Your task to perform on an android device: Do I have any events today? Image 0: 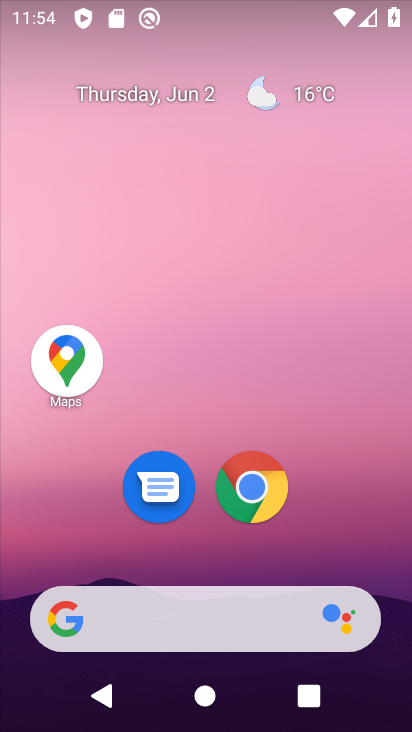
Step 0: drag from (341, 564) to (309, 149)
Your task to perform on an android device: Do I have any events today? Image 1: 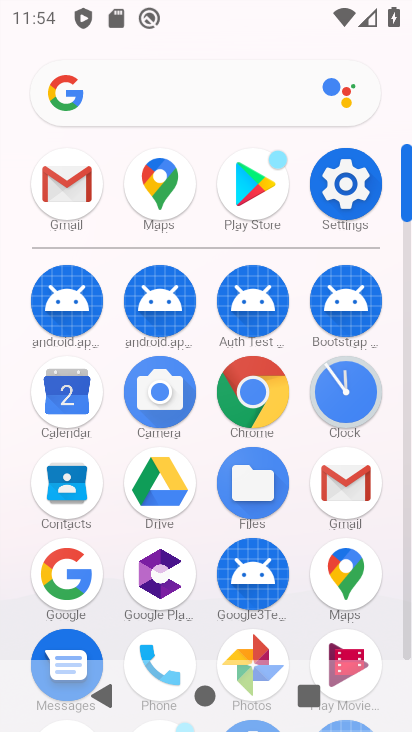
Step 1: click (69, 405)
Your task to perform on an android device: Do I have any events today? Image 2: 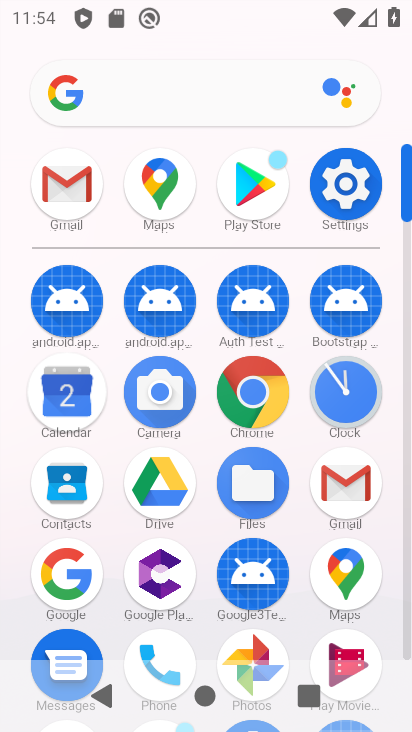
Step 2: click (67, 401)
Your task to perform on an android device: Do I have any events today? Image 3: 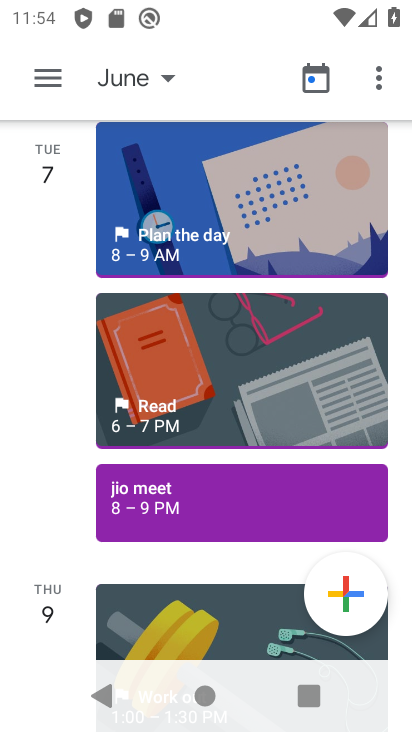
Step 3: drag from (405, 190) to (334, 274)
Your task to perform on an android device: Do I have any events today? Image 4: 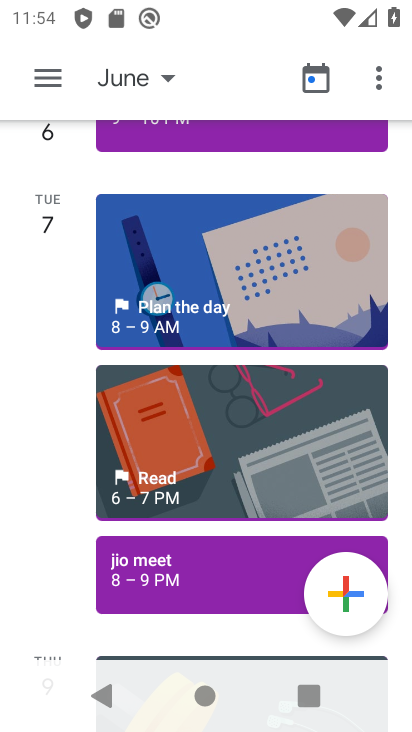
Step 4: click (51, 74)
Your task to perform on an android device: Do I have any events today? Image 5: 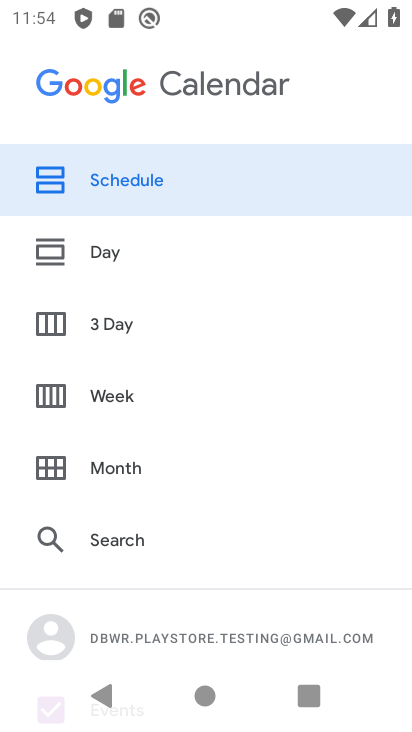
Step 5: drag from (329, 540) to (294, 479)
Your task to perform on an android device: Do I have any events today? Image 6: 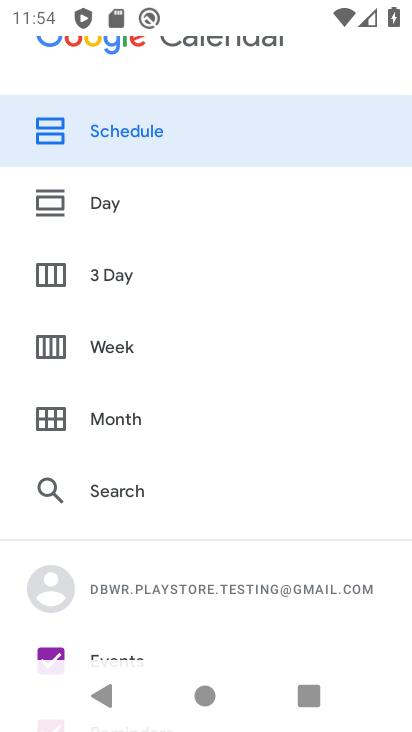
Step 6: click (127, 138)
Your task to perform on an android device: Do I have any events today? Image 7: 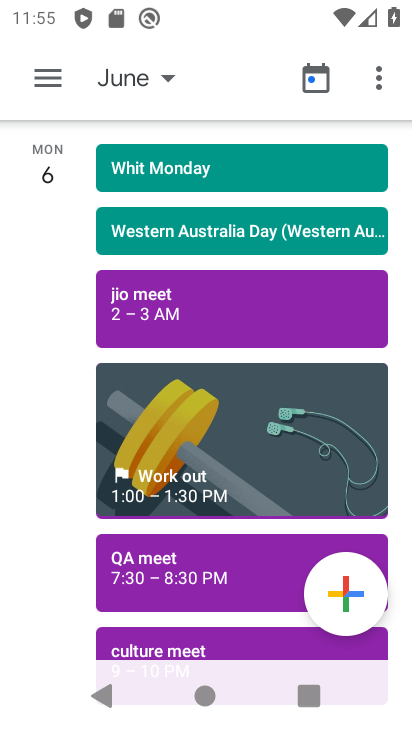
Step 7: task complete